Your task to perform on an android device: What's the weather going to be this weekend? Image 0: 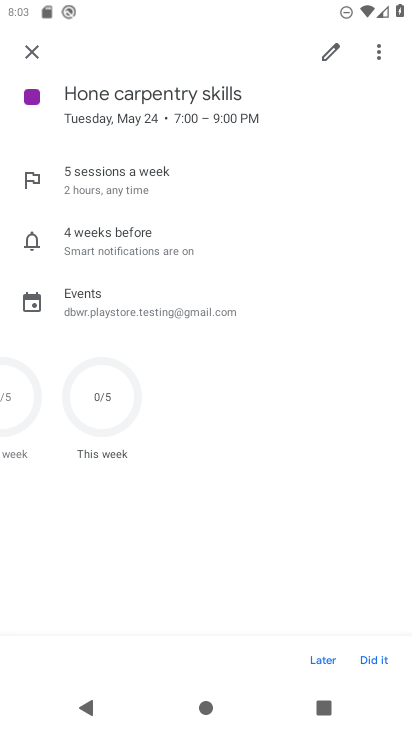
Step 0: press back button
Your task to perform on an android device: What's the weather going to be this weekend? Image 1: 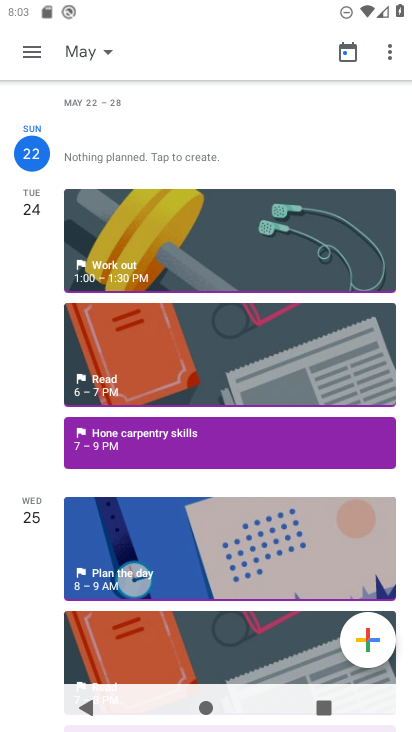
Step 1: press back button
Your task to perform on an android device: What's the weather going to be this weekend? Image 2: 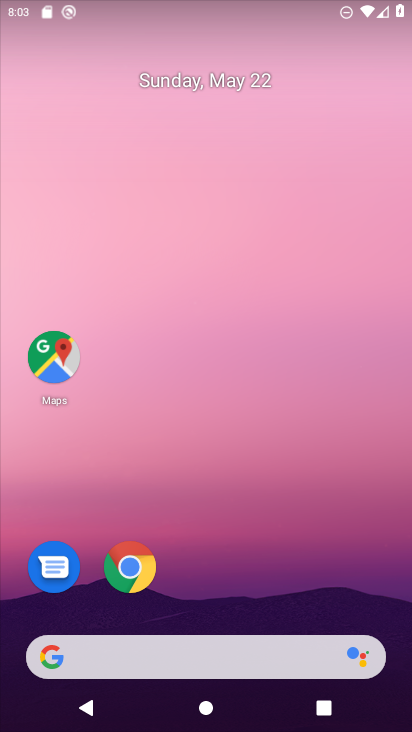
Step 2: click (145, 658)
Your task to perform on an android device: What's the weather going to be this weekend? Image 3: 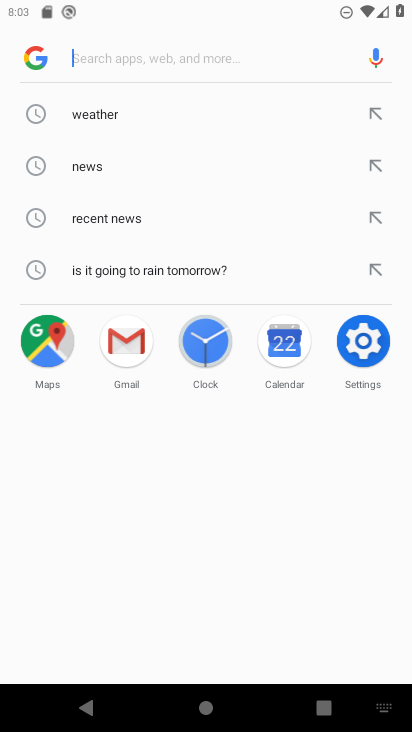
Step 3: click (111, 110)
Your task to perform on an android device: What's the weather going to be this weekend? Image 4: 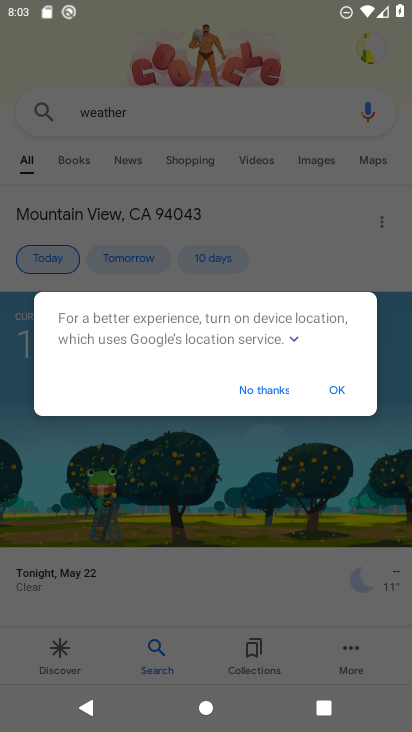
Step 4: click (260, 388)
Your task to perform on an android device: What's the weather going to be this weekend? Image 5: 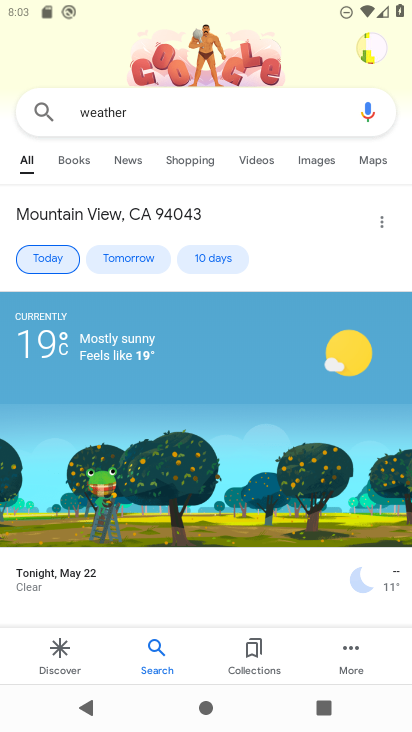
Step 5: click (212, 252)
Your task to perform on an android device: What's the weather going to be this weekend? Image 6: 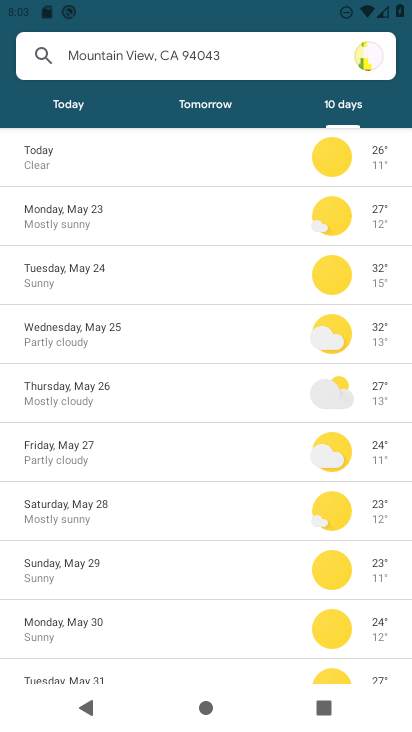
Step 6: task complete